Your task to perform on an android device: Open Youtube and go to the subscriptions tab Image 0: 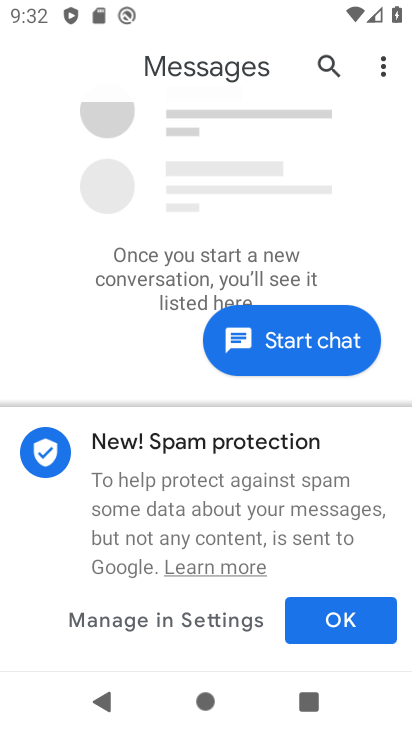
Step 0: press home button
Your task to perform on an android device: Open Youtube and go to the subscriptions tab Image 1: 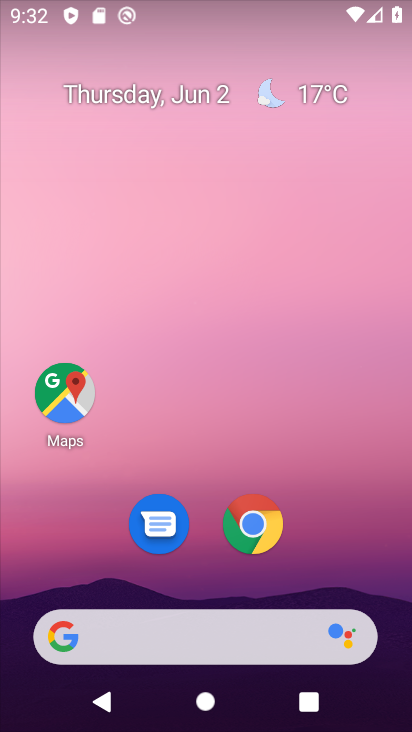
Step 1: drag from (315, 540) to (313, 12)
Your task to perform on an android device: Open Youtube and go to the subscriptions tab Image 2: 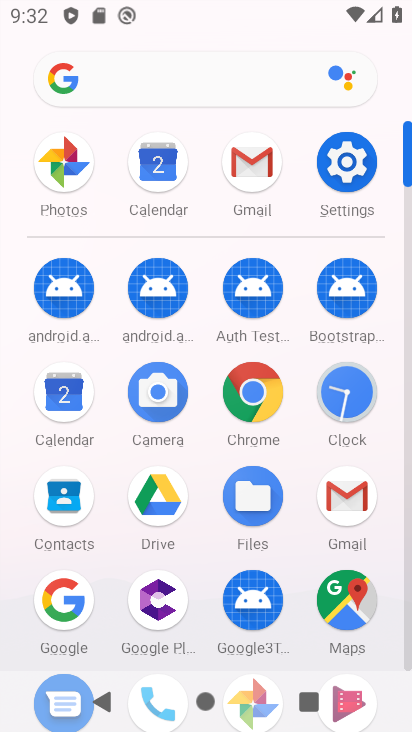
Step 2: drag from (179, 444) to (183, 111)
Your task to perform on an android device: Open Youtube and go to the subscriptions tab Image 3: 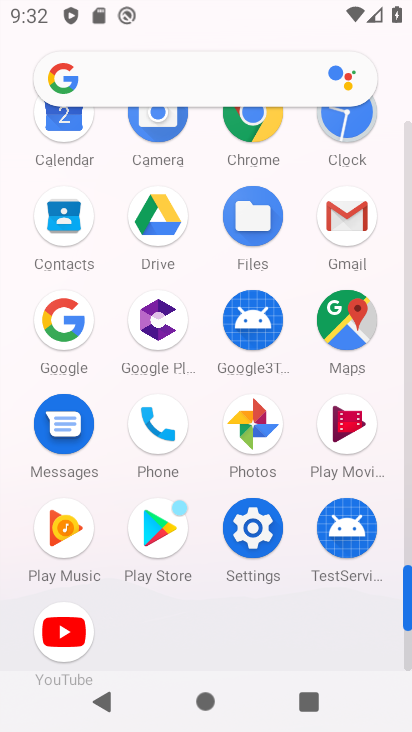
Step 3: click (67, 628)
Your task to perform on an android device: Open Youtube and go to the subscriptions tab Image 4: 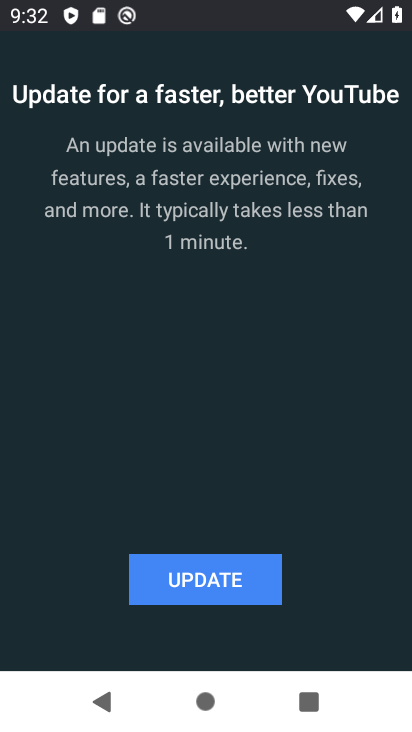
Step 4: click (170, 581)
Your task to perform on an android device: Open Youtube and go to the subscriptions tab Image 5: 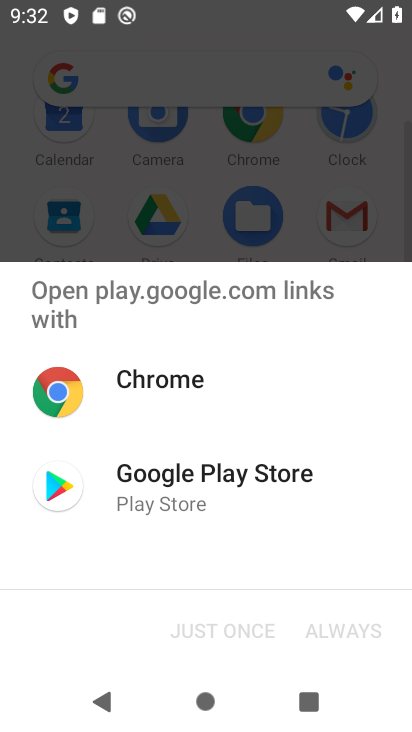
Step 5: click (158, 486)
Your task to perform on an android device: Open Youtube and go to the subscriptions tab Image 6: 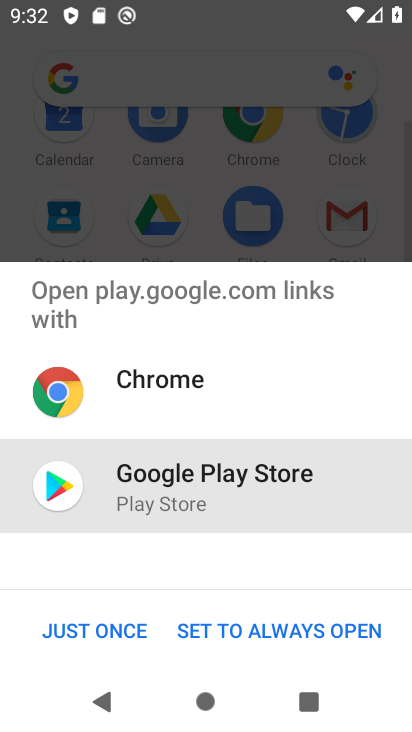
Step 6: click (115, 636)
Your task to perform on an android device: Open Youtube and go to the subscriptions tab Image 7: 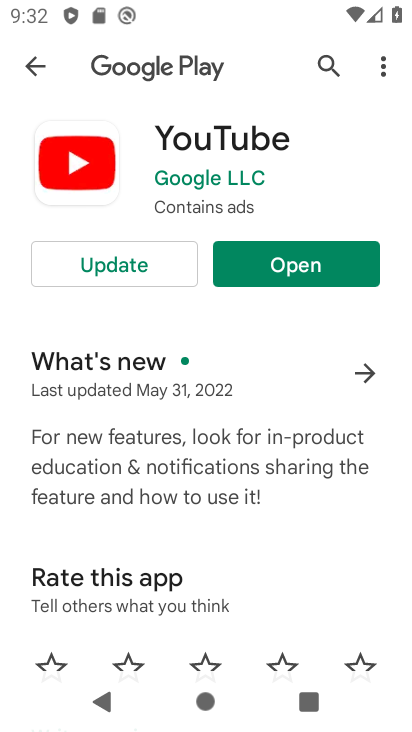
Step 7: click (177, 263)
Your task to perform on an android device: Open Youtube and go to the subscriptions tab Image 8: 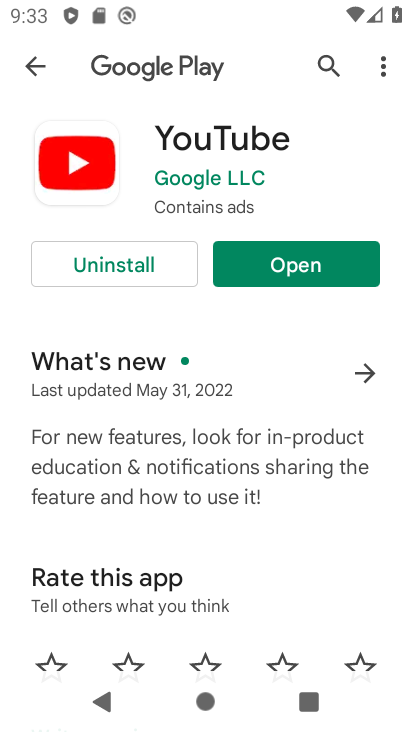
Step 8: click (304, 269)
Your task to perform on an android device: Open Youtube and go to the subscriptions tab Image 9: 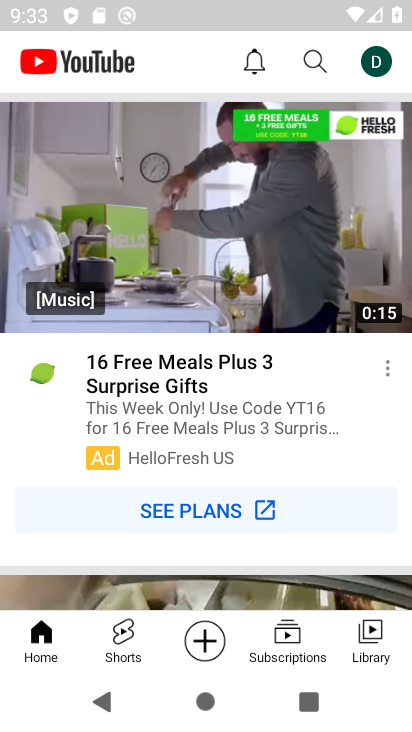
Step 9: click (300, 637)
Your task to perform on an android device: Open Youtube and go to the subscriptions tab Image 10: 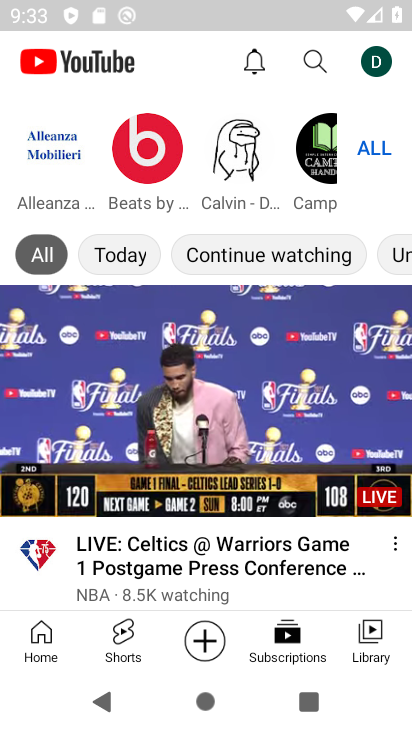
Step 10: task complete